Your task to perform on an android device: Open Google Maps Image 0: 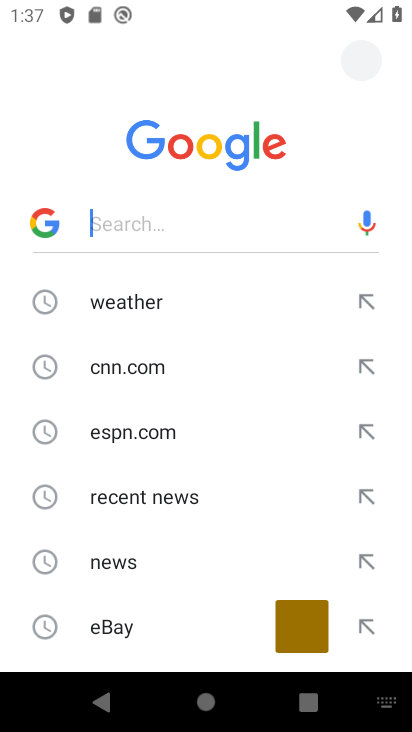
Step 0: press back button
Your task to perform on an android device: Open Google Maps Image 1: 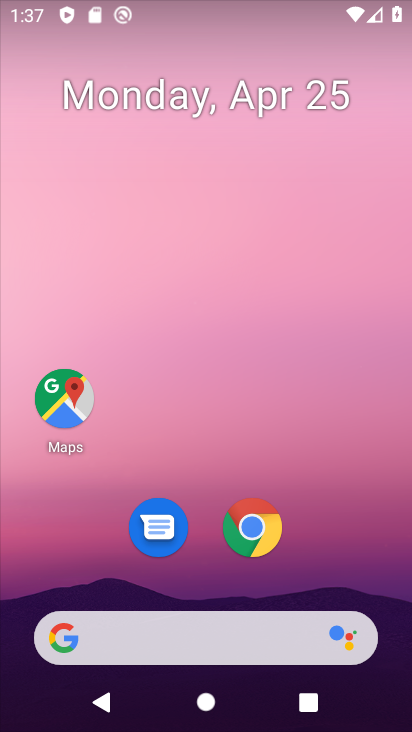
Step 1: drag from (389, 631) to (306, 103)
Your task to perform on an android device: Open Google Maps Image 2: 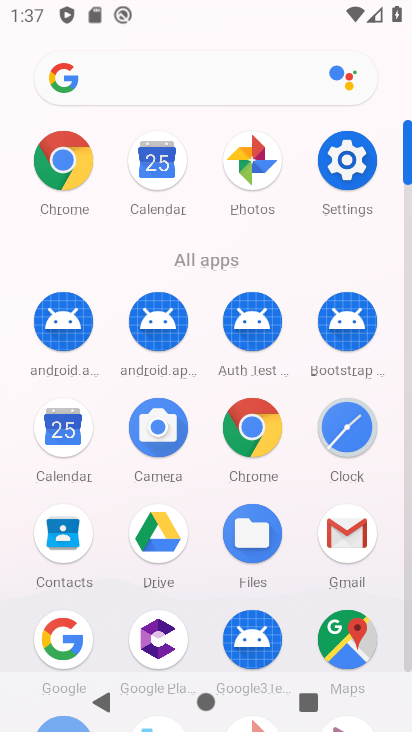
Step 2: click (331, 645)
Your task to perform on an android device: Open Google Maps Image 3: 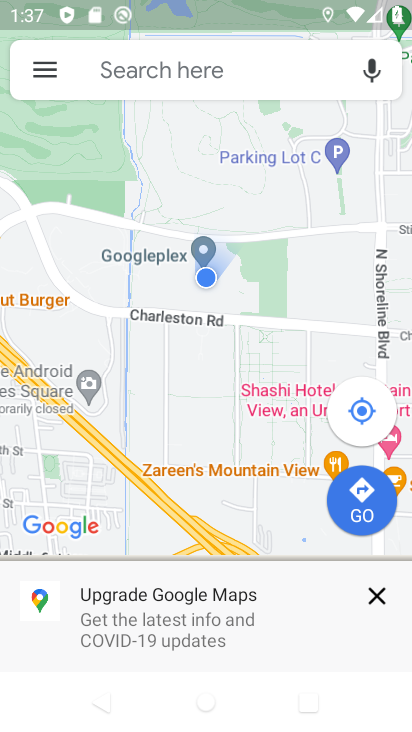
Step 3: task complete